Your task to perform on an android device: open app "Venmo" (install if not already installed), go to login, and select forgot password Image 0: 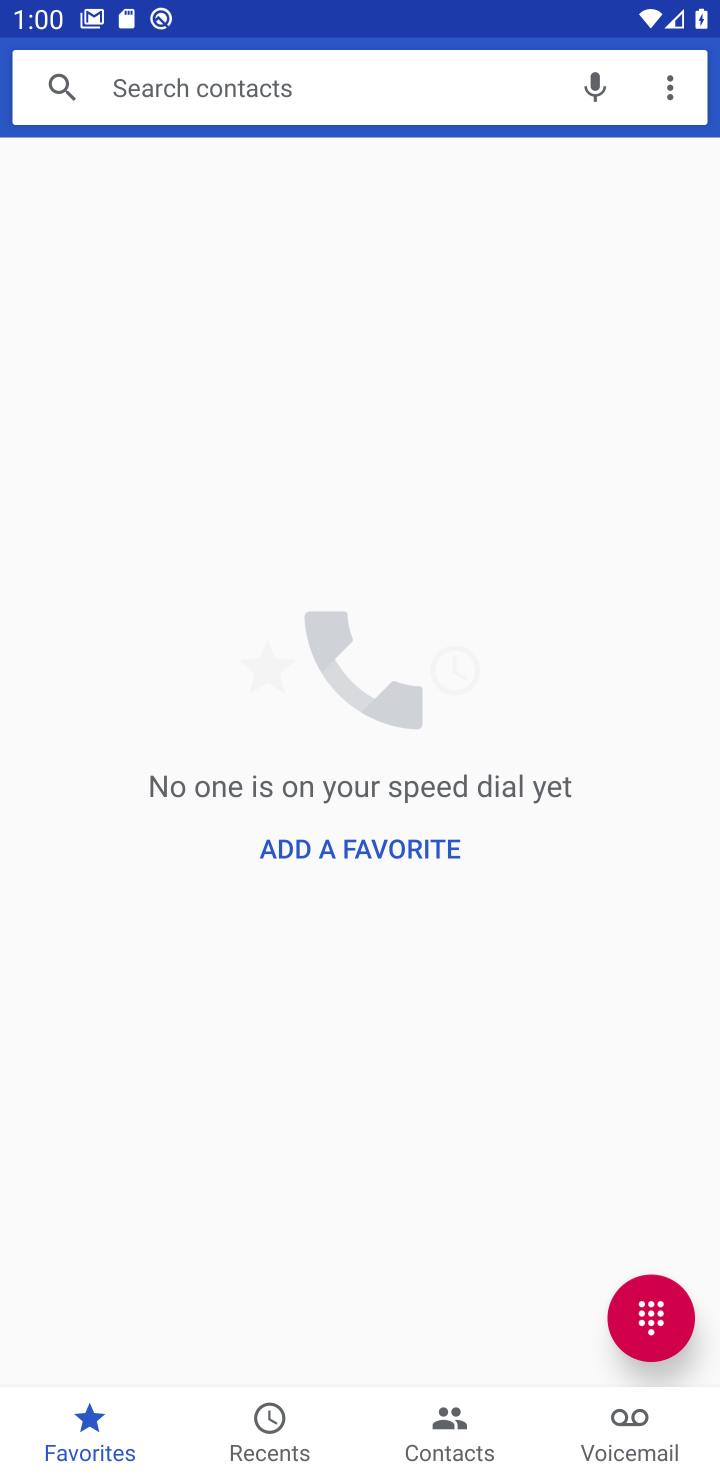
Step 0: press home button
Your task to perform on an android device: open app "Venmo" (install if not already installed), go to login, and select forgot password Image 1: 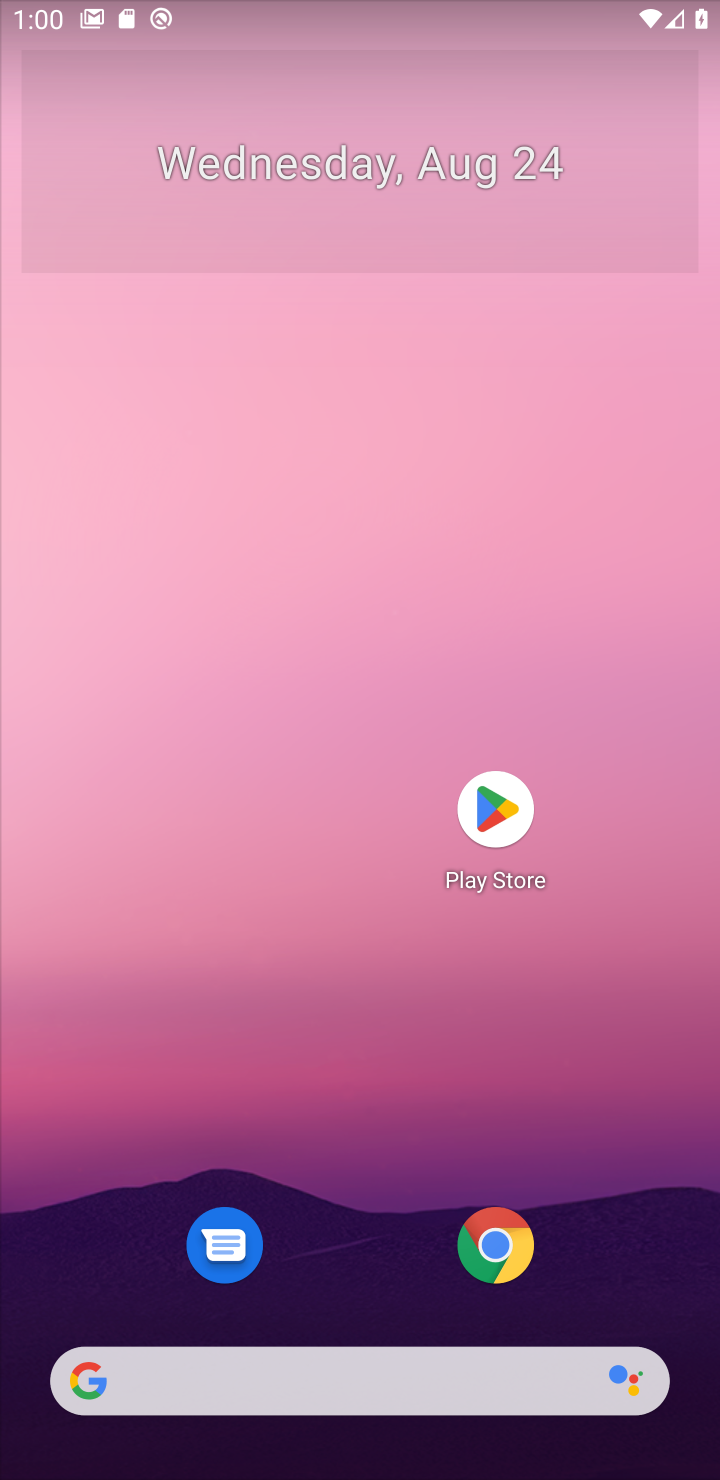
Step 1: press home button
Your task to perform on an android device: open app "Venmo" (install if not already installed), go to login, and select forgot password Image 2: 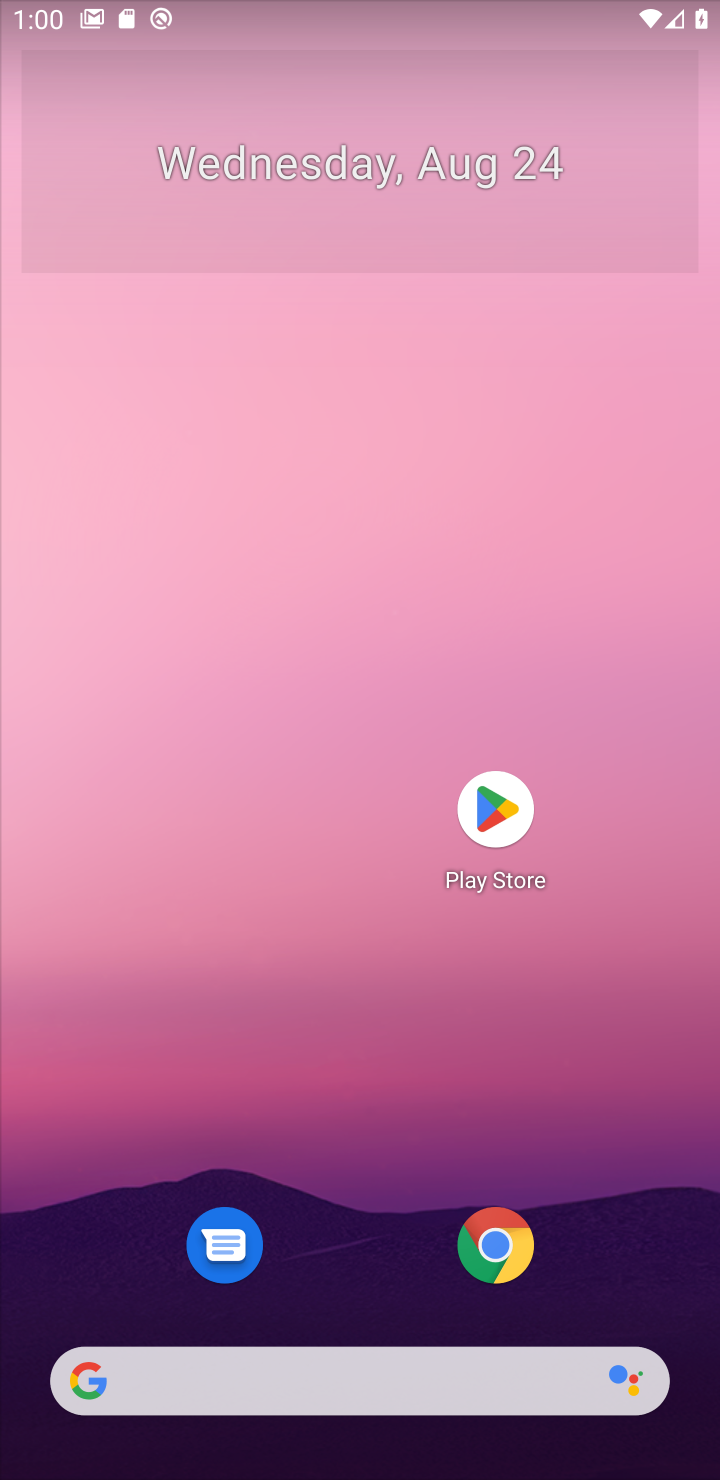
Step 2: click (478, 809)
Your task to perform on an android device: open app "Venmo" (install if not already installed), go to login, and select forgot password Image 3: 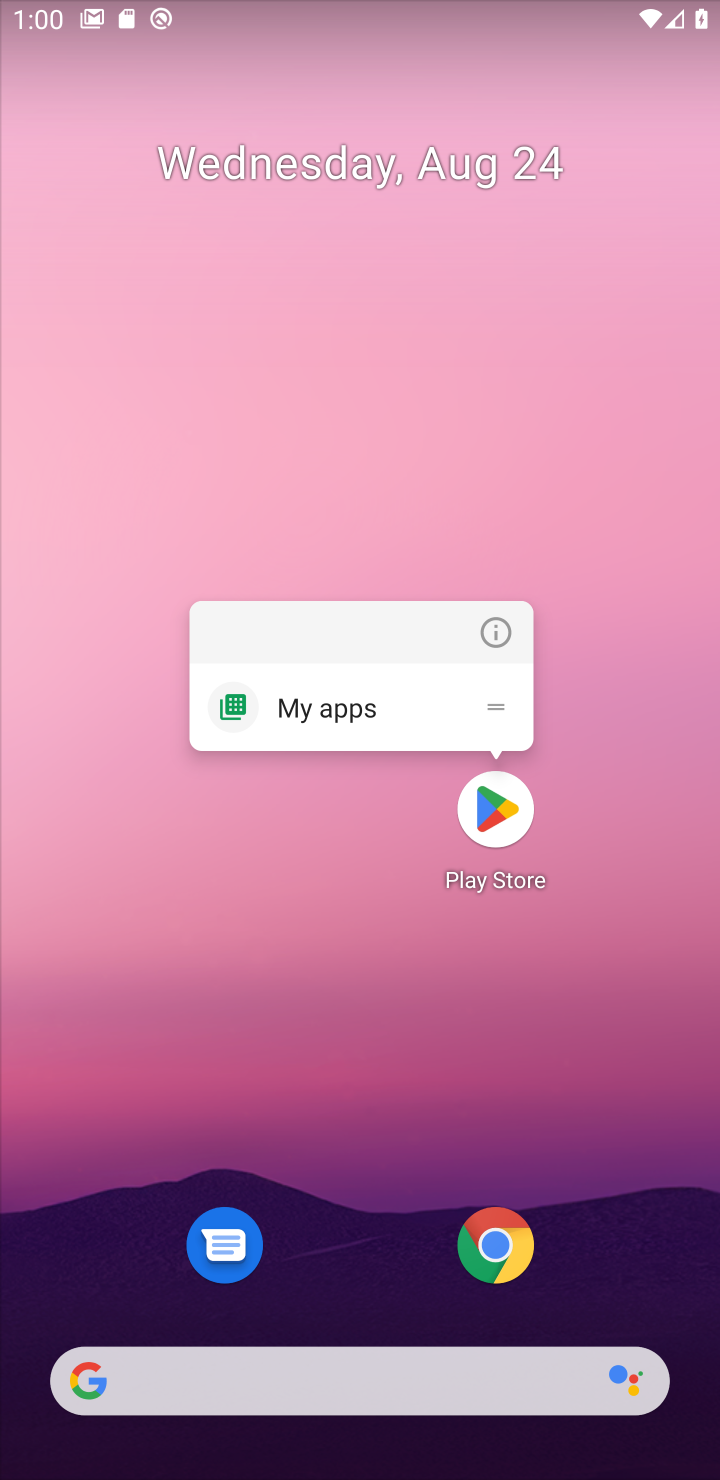
Step 3: click (478, 809)
Your task to perform on an android device: open app "Venmo" (install if not already installed), go to login, and select forgot password Image 4: 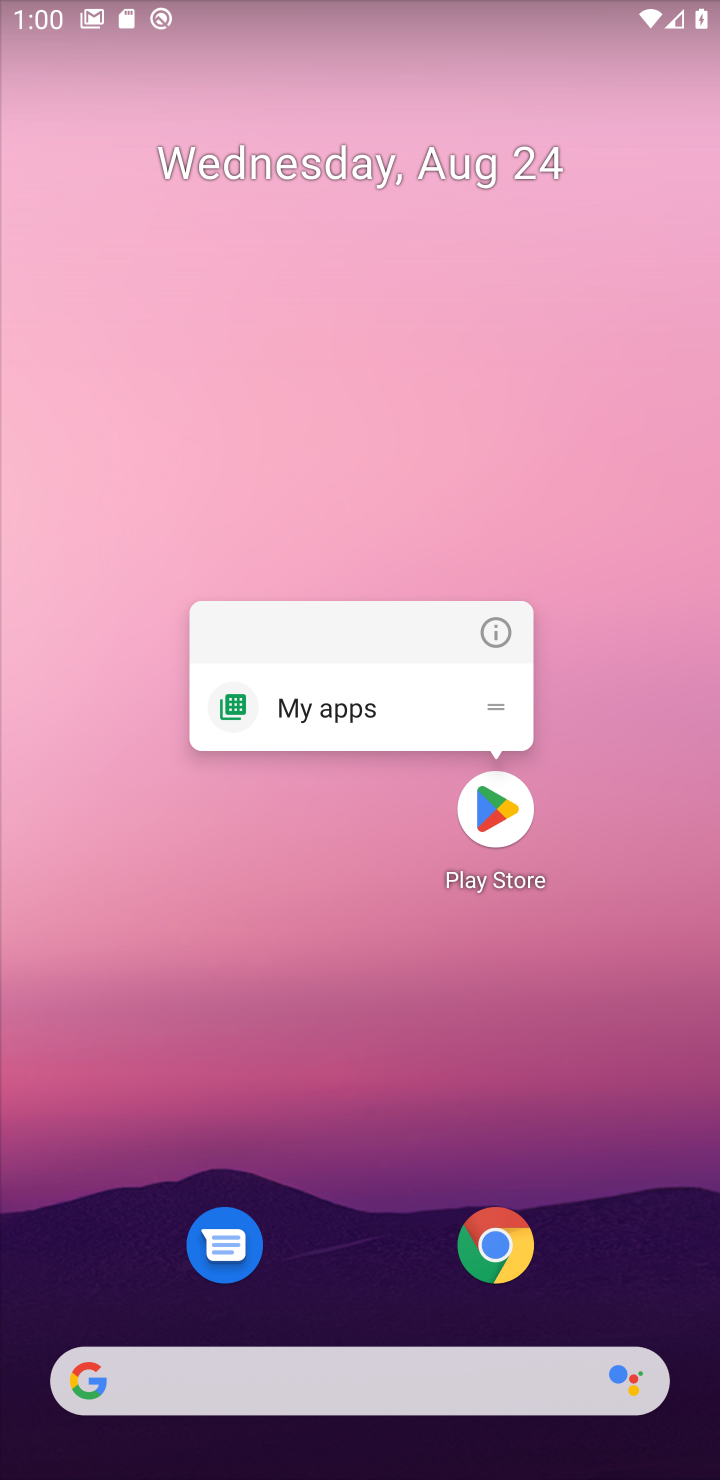
Step 4: click (483, 801)
Your task to perform on an android device: open app "Venmo" (install if not already installed), go to login, and select forgot password Image 5: 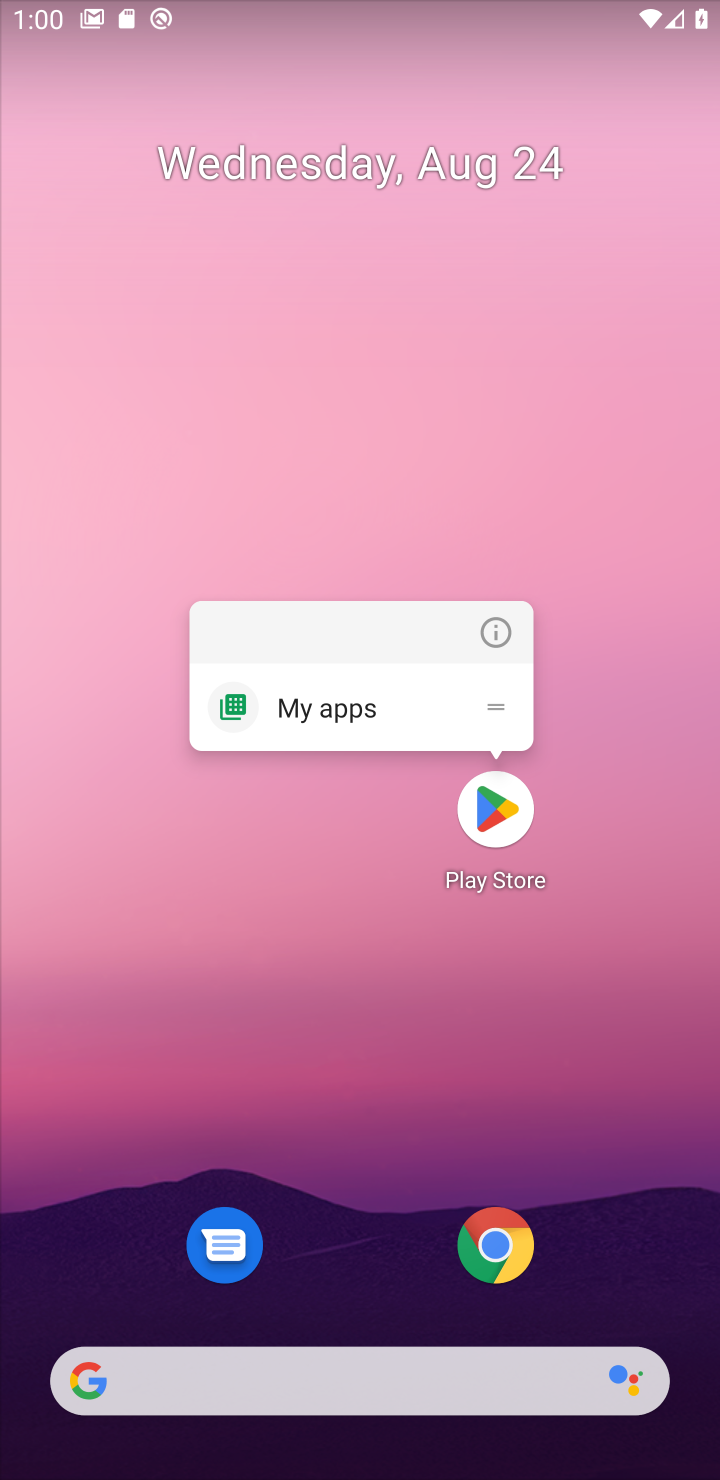
Step 5: click (487, 797)
Your task to perform on an android device: open app "Venmo" (install if not already installed), go to login, and select forgot password Image 6: 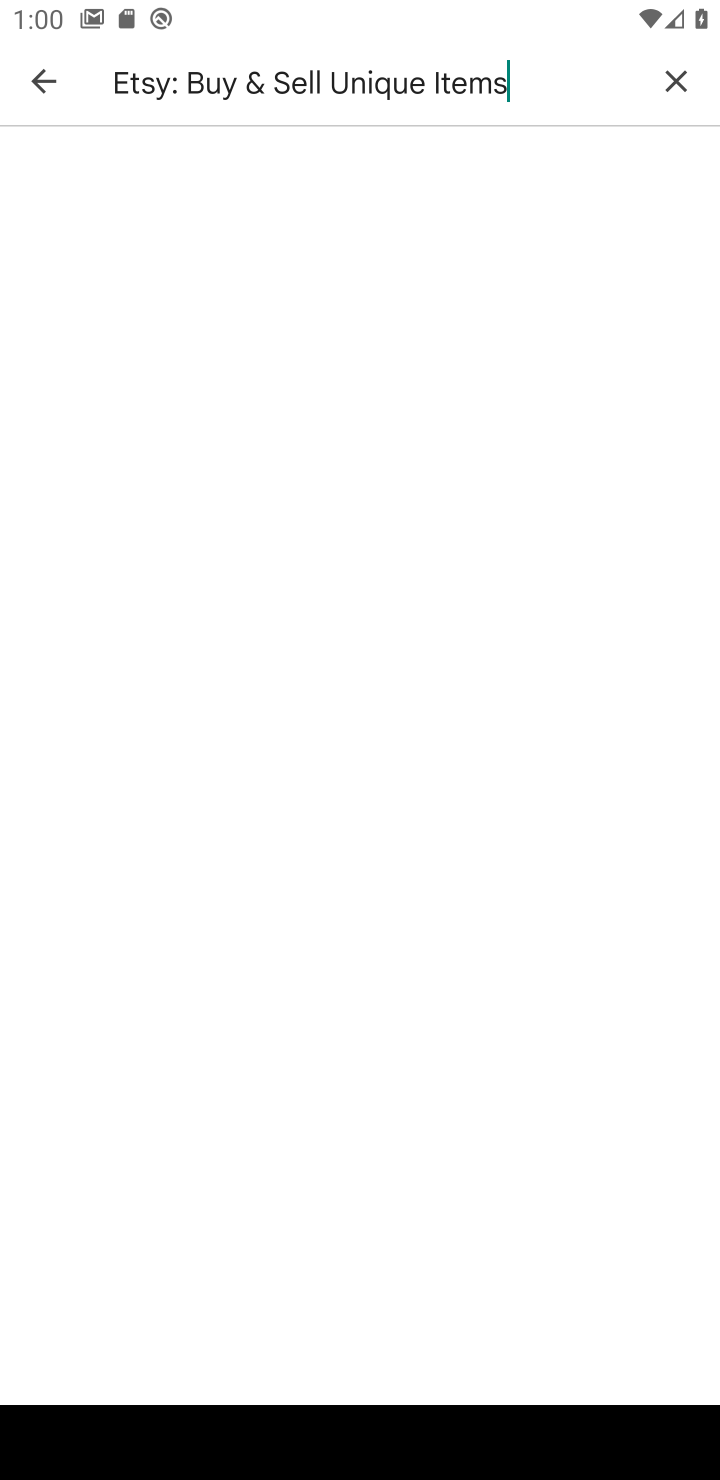
Step 6: click (676, 73)
Your task to perform on an android device: open app "Venmo" (install if not already installed), go to login, and select forgot password Image 7: 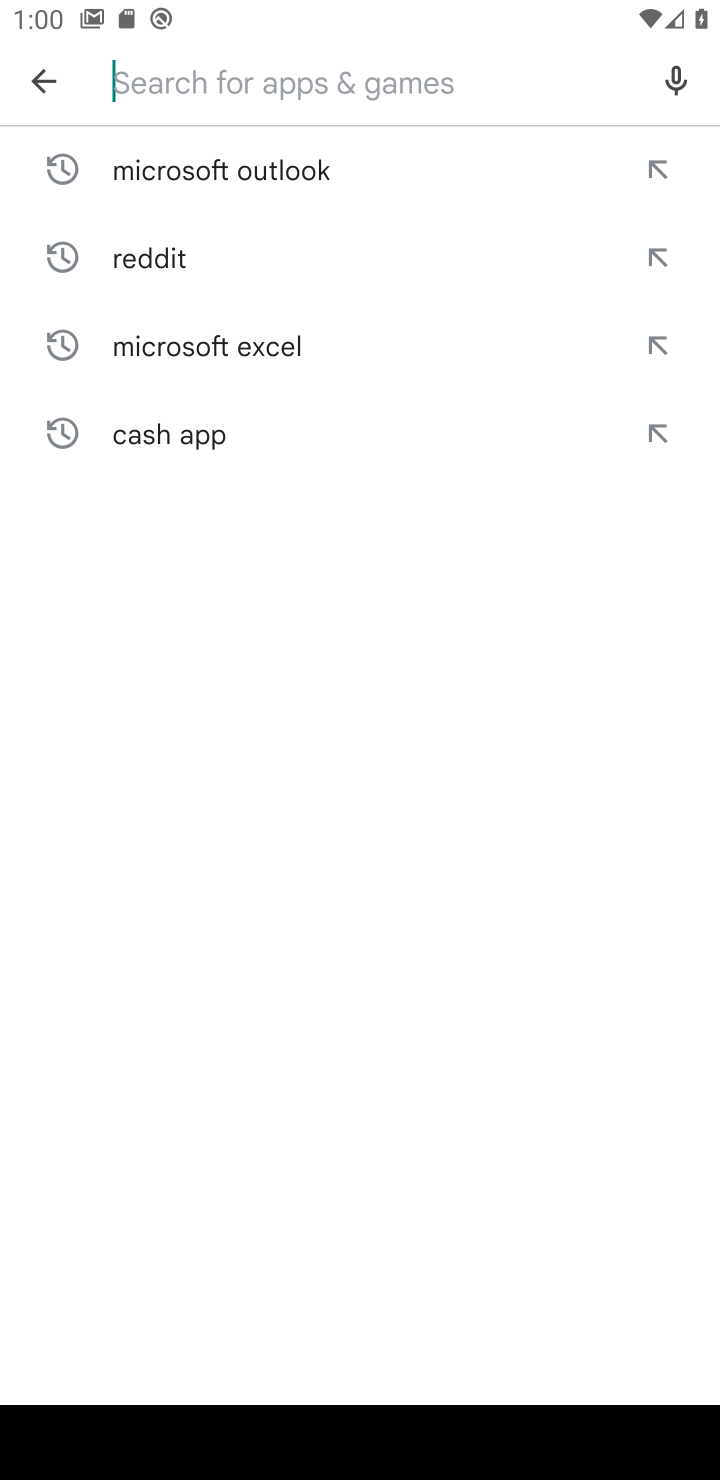
Step 7: type "Venmo"
Your task to perform on an android device: open app "Venmo" (install if not already installed), go to login, and select forgot password Image 8: 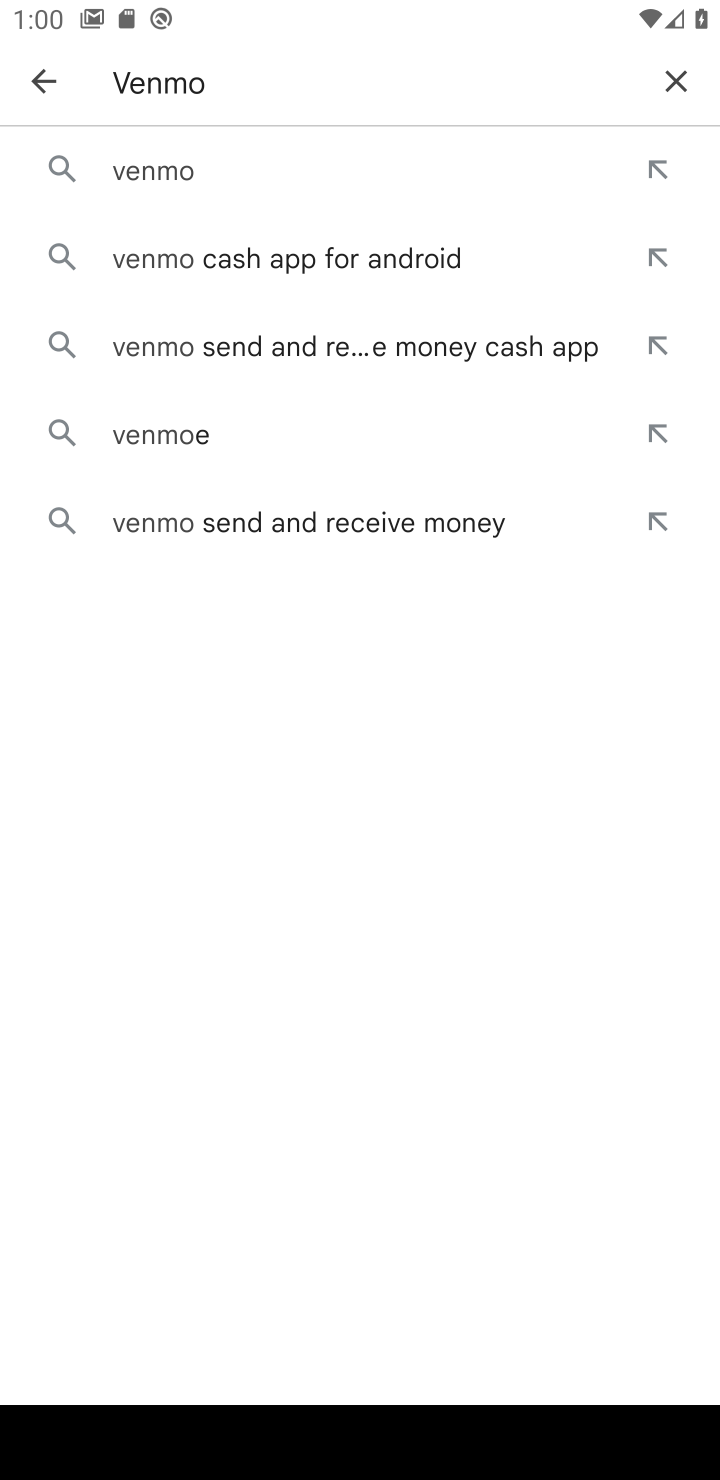
Step 8: click (209, 170)
Your task to perform on an android device: open app "Venmo" (install if not already installed), go to login, and select forgot password Image 9: 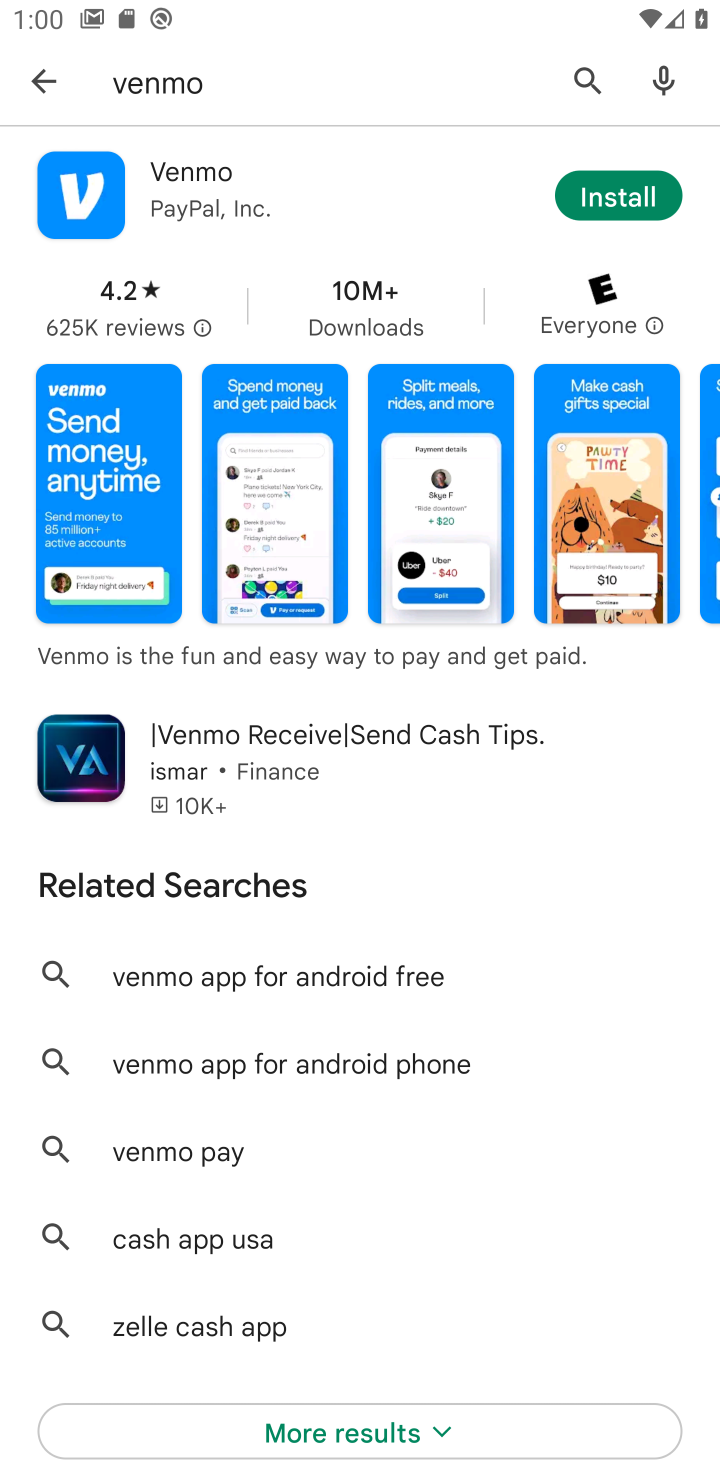
Step 9: click (628, 218)
Your task to perform on an android device: open app "Venmo" (install if not already installed), go to login, and select forgot password Image 10: 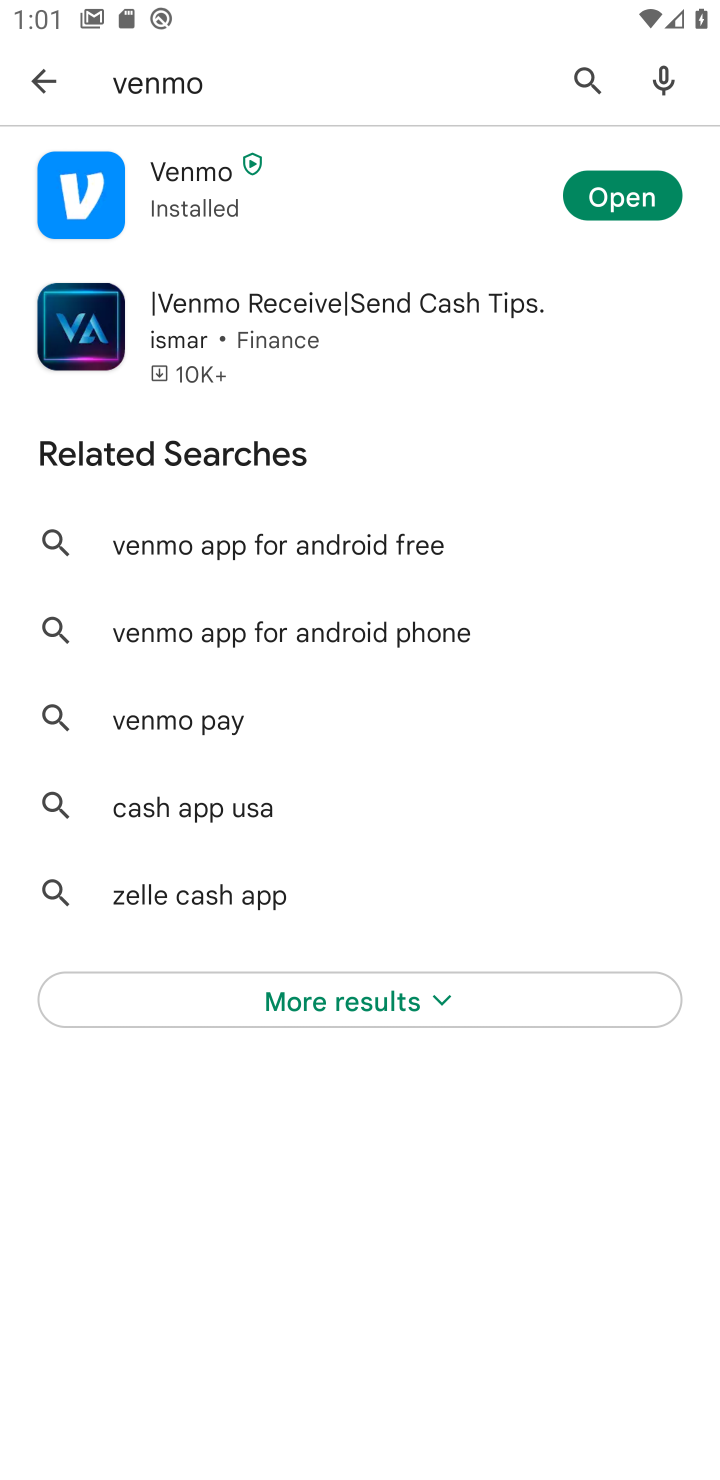
Step 10: click (597, 197)
Your task to perform on an android device: open app "Venmo" (install if not already installed), go to login, and select forgot password Image 11: 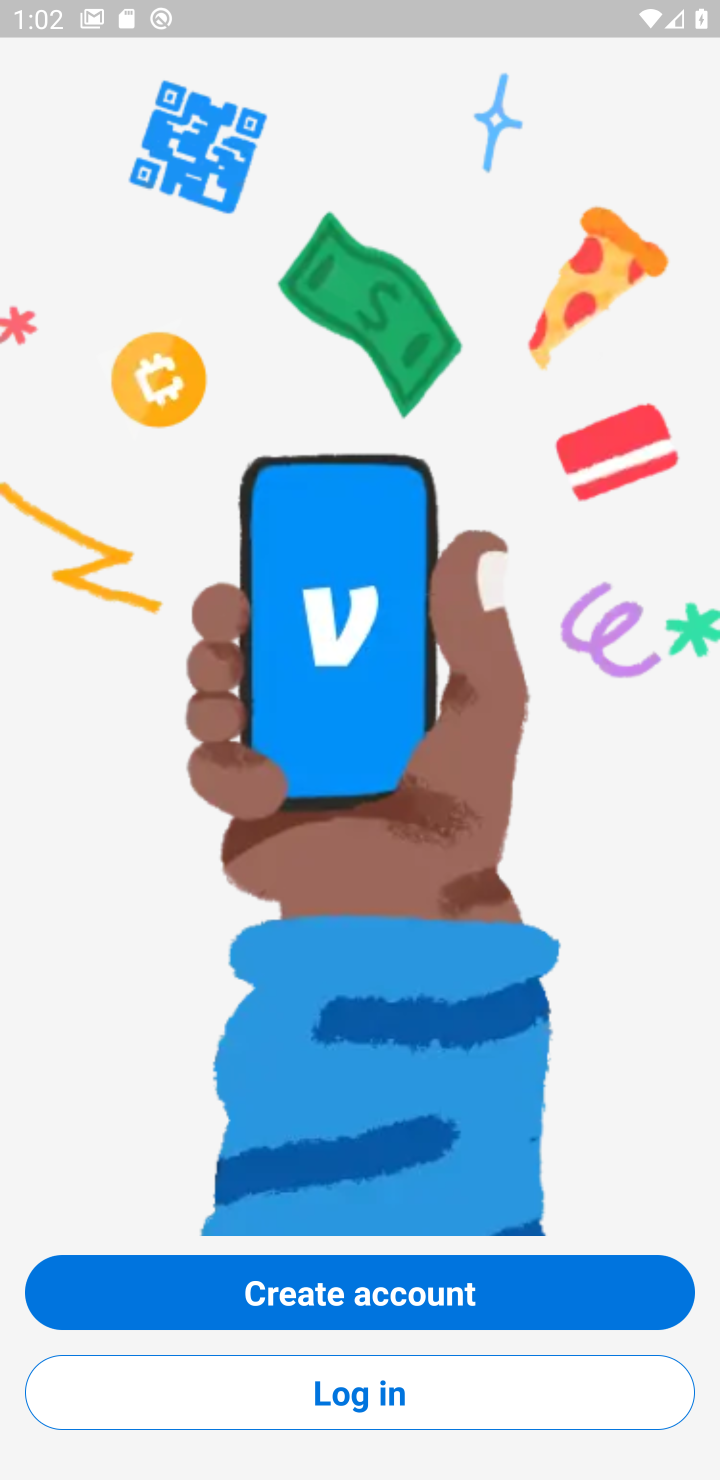
Step 11: click (418, 1399)
Your task to perform on an android device: open app "Venmo" (install if not already installed), go to login, and select forgot password Image 12: 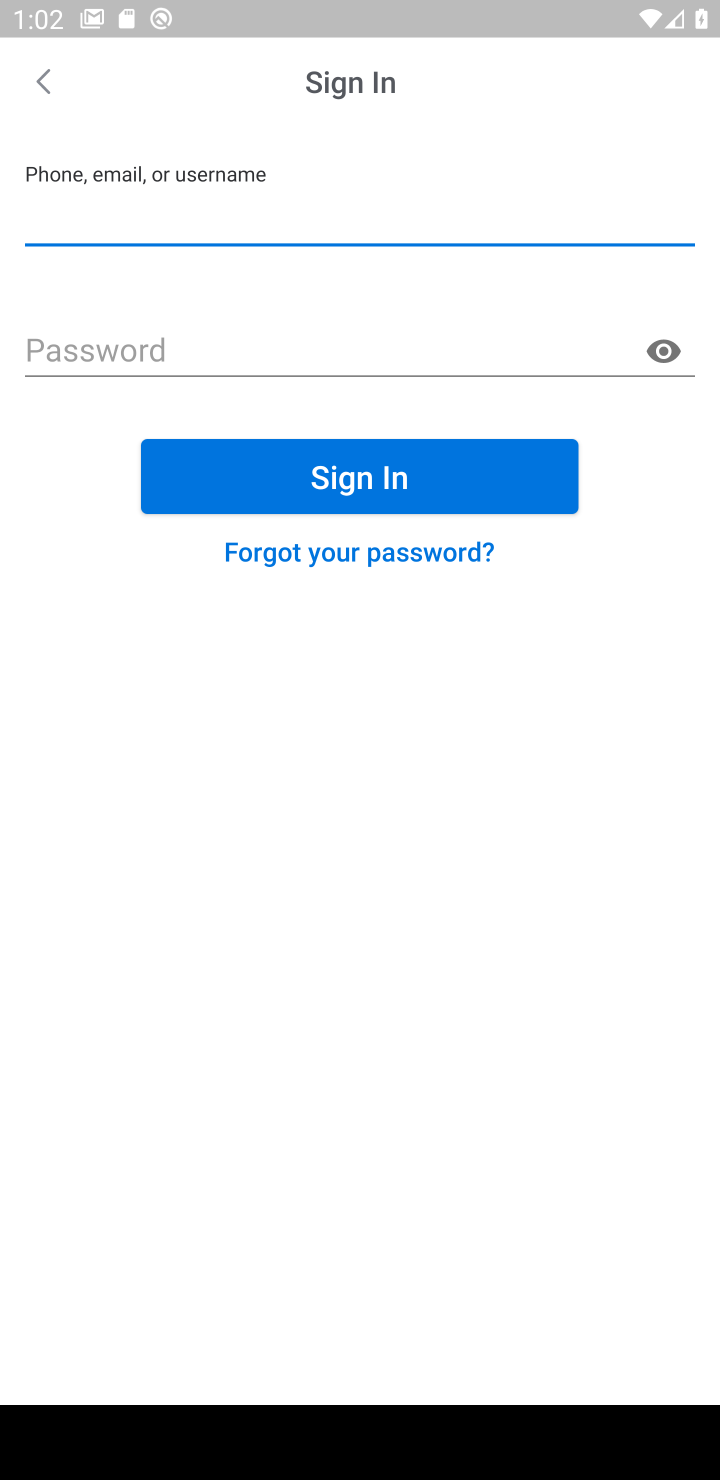
Step 12: click (395, 548)
Your task to perform on an android device: open app "Venmo" (install if not already installed), go to login, and select forgot password Image 13: 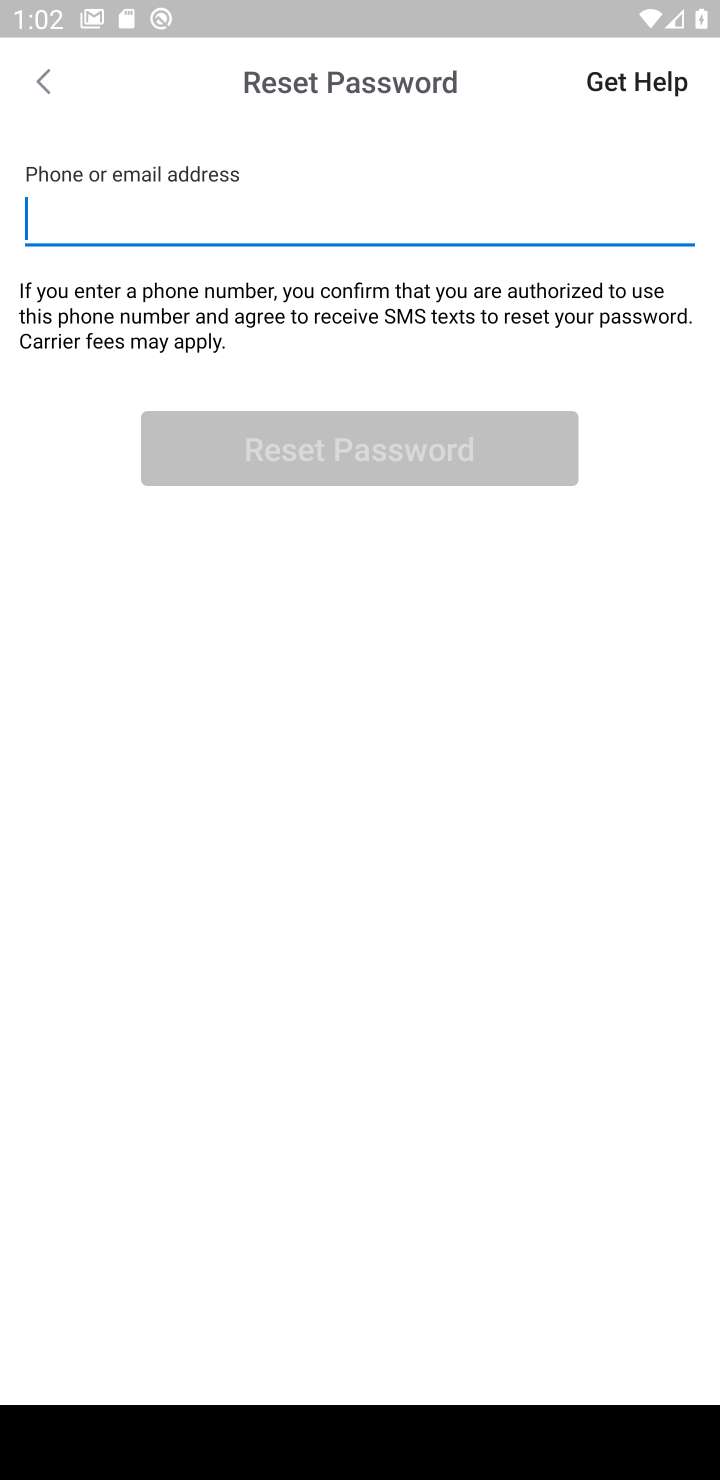
Step 13: task complete